Your task to perform on an android device: Open battery settings Image 0: 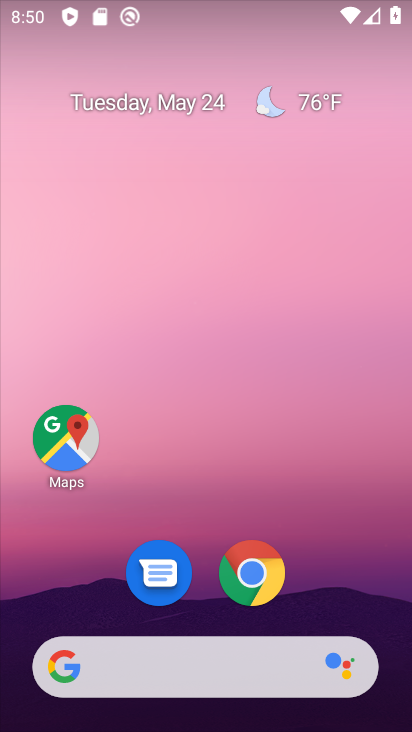
Step 0: drag from (77, 638) to (229, 159)
Your task to perform on an android device: Open battery settings Image 1: 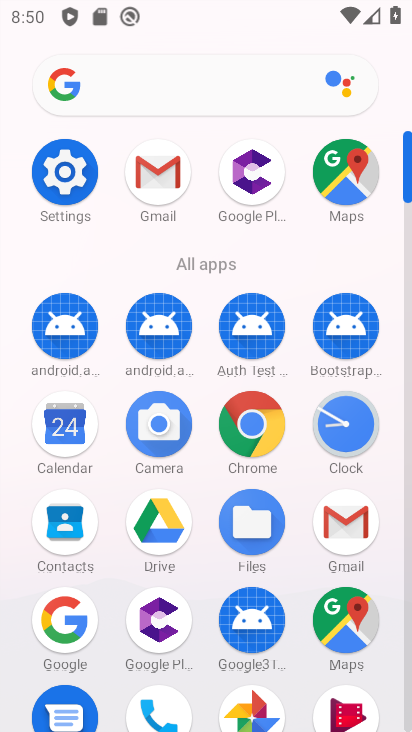
Step 1: drag from (168, 529) to (252, 238)
Your task to perform on an android device: Open battery settings Image 2: 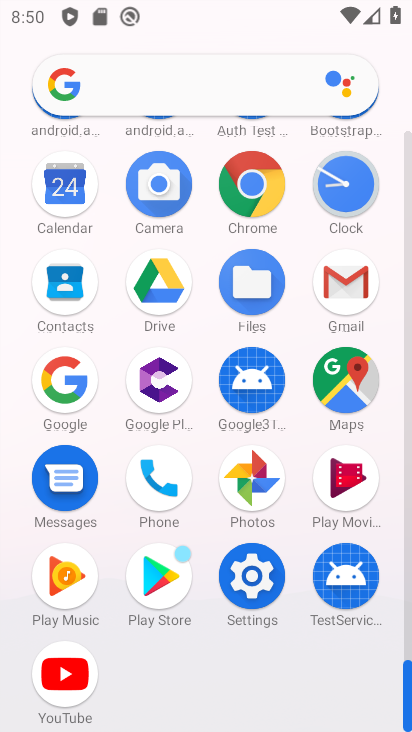
Step 2: drag from (229, 633) to (244, 535)
Your task to perform on an android device: Open battery settings Image 3: 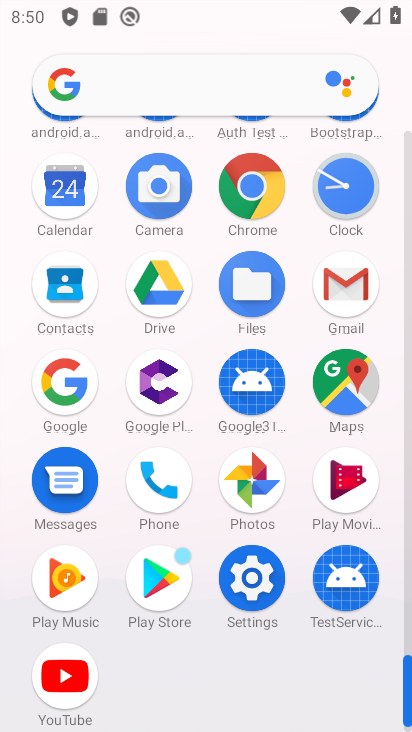
Step 3: click (255, 584)
Your task to perform on an android device: Open battery settings Image 4: 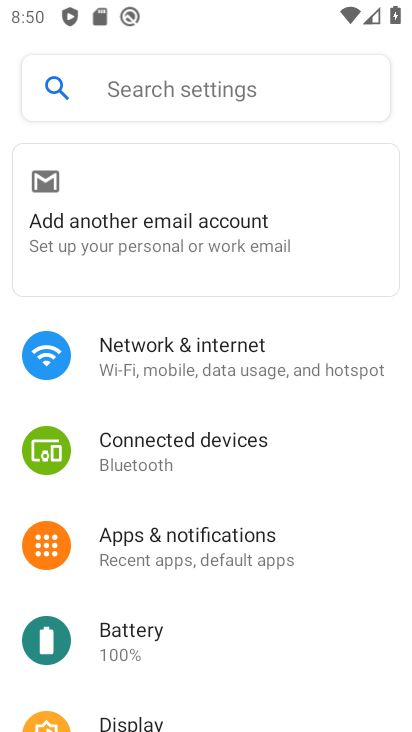
Step 4: click (200, 628)
Your task to perform on an android device: Open battery settings Image 5: 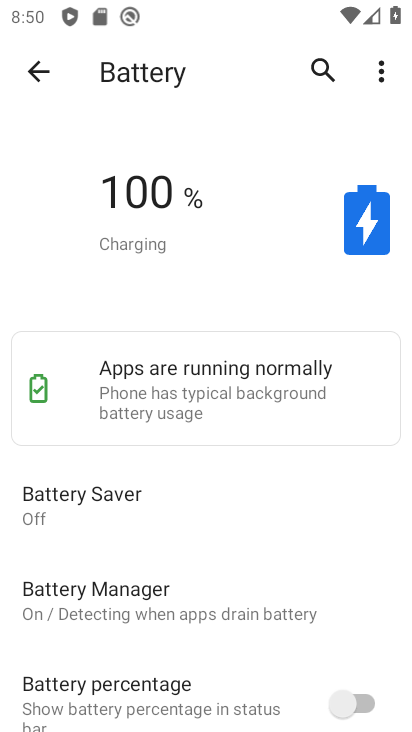
Step 5: task complete